Your task to perform on an android device: change the upload size in google photos Image 0: 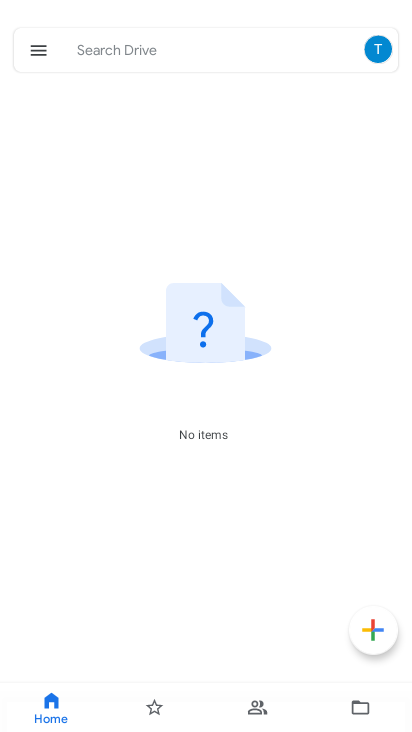
Step 0: press home button
Your task to perform on an android device: change the upload size in google photos Image 1: 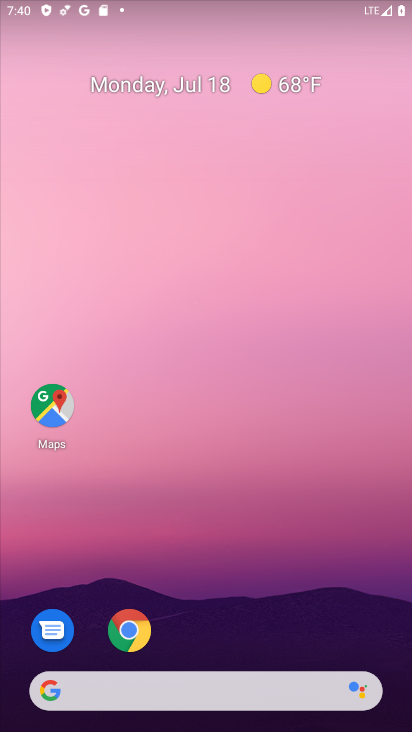
Step 1: drag from (207, 620) to (223, 134)
Your task to perform on an android device: change the upload size in google photos Image 2: 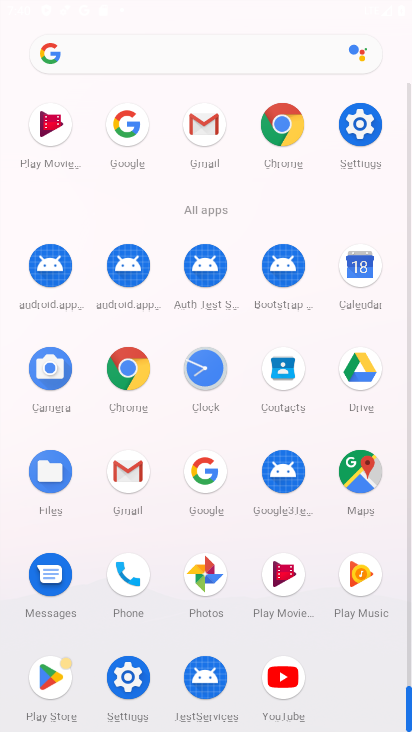
Step 2: click (209, 582)
Your task to perform on an android device: change the upload size in google photos Image 3: 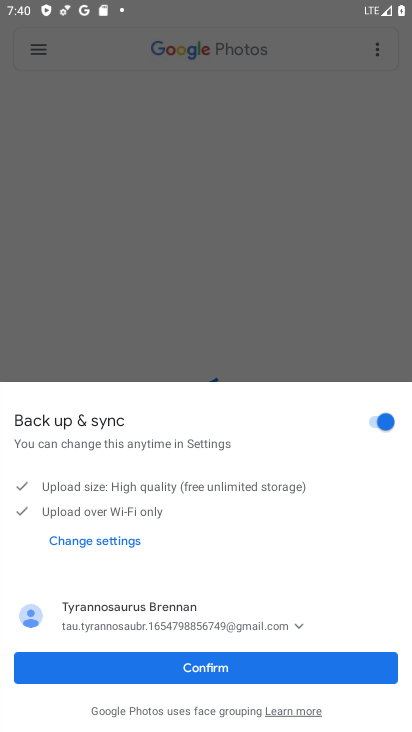
Step 3: click (111, 665)
Your task to perform on an android device: change the upload size in google photos Image 4: 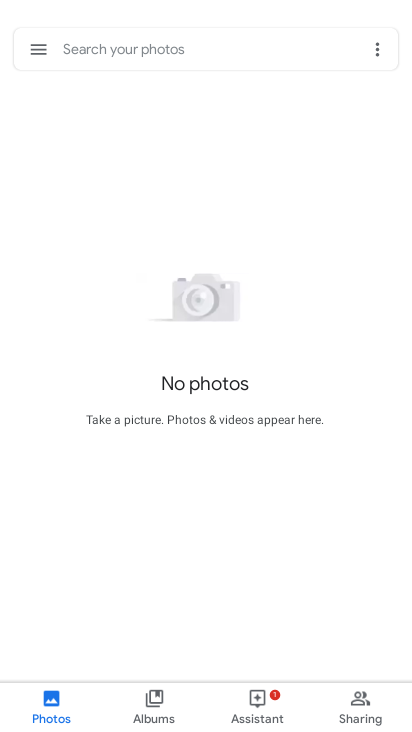
Step 4: click (38, 56)
Your task to perform on an android device: change the upload size in google photos Image 5: 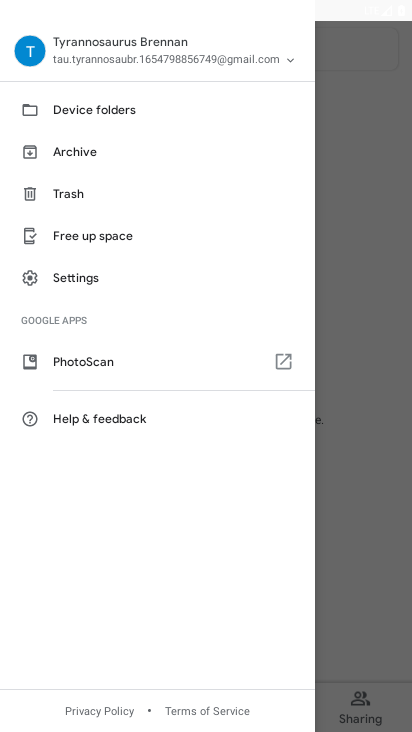
Step 5: click (85, 282)
Your task to perform on an android device: change the upload size in google photos Image 6: 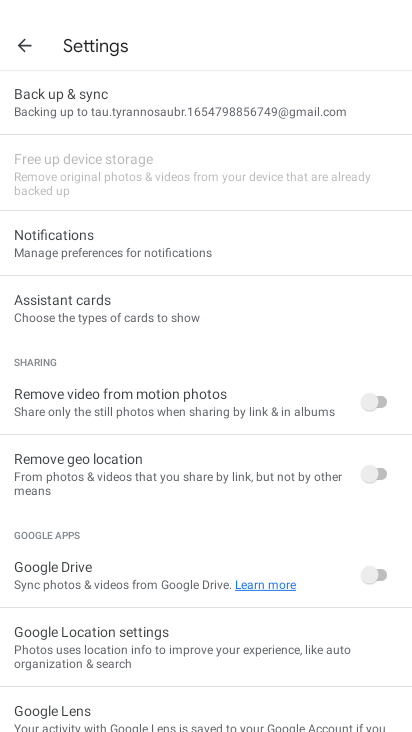
Step 6: click (155, 119)
Your task to perform on an android device: change the upload size in google photos Image 7: 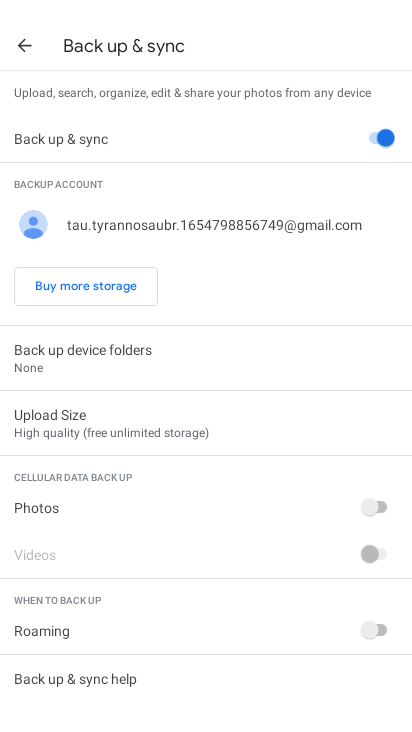
Step 7: task complete